Your task to perform on an android device: Go to eBay Image 0: 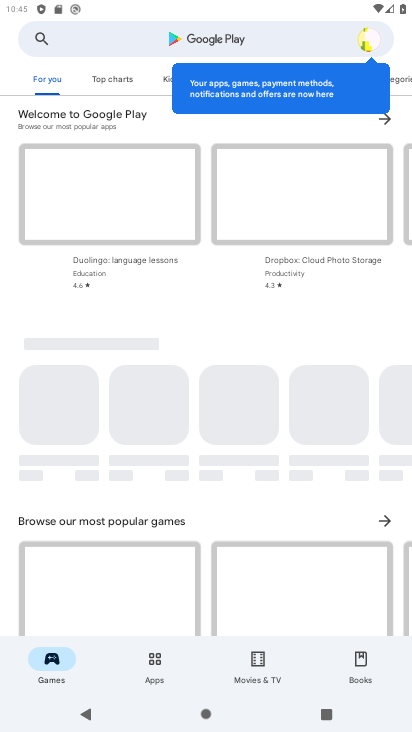
Step 0: press home button
Your task to perform on an android device: Go to eBay Image 1: 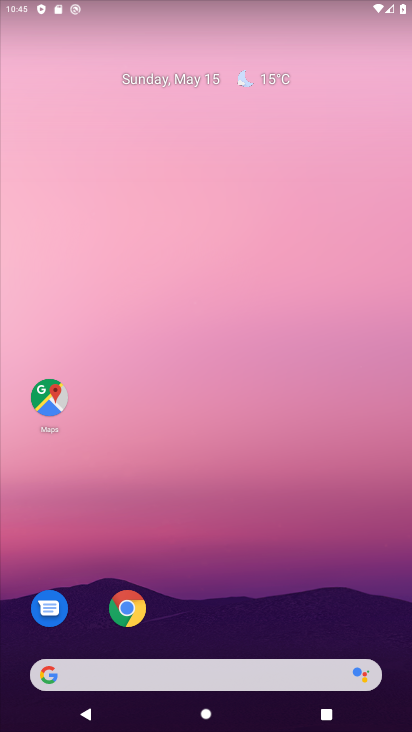
Step 1: drag from (262, 598) to (229, 187)
Your task to perform on an android device: Go to eBay Image 2: 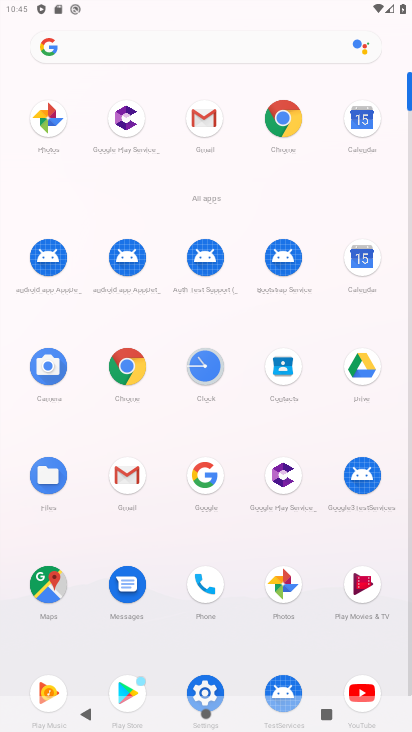
Step 2: click (284, 135)
Your task to perform on an android device: Go to eBay Image 3: 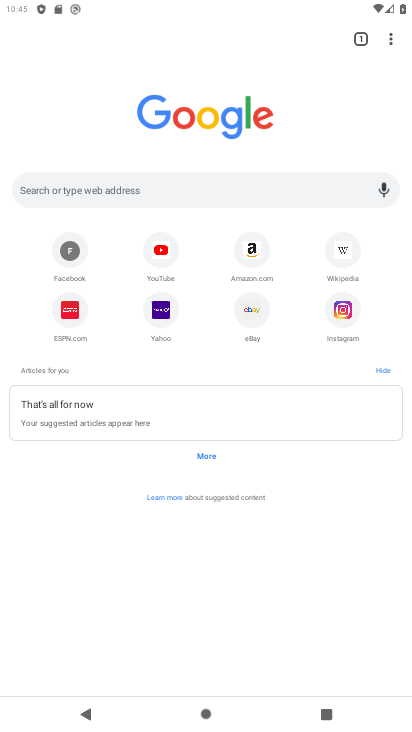
Step 3: click (243, 325)
Your task to perform on an android device: Go to eBay Image 4: 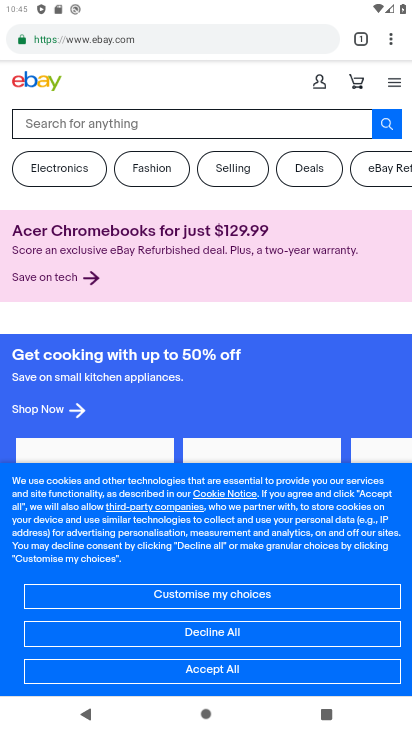
Step 4: task complete